Your task to perform on an android device: Look up the best selling books on Goodreads. Image 0: 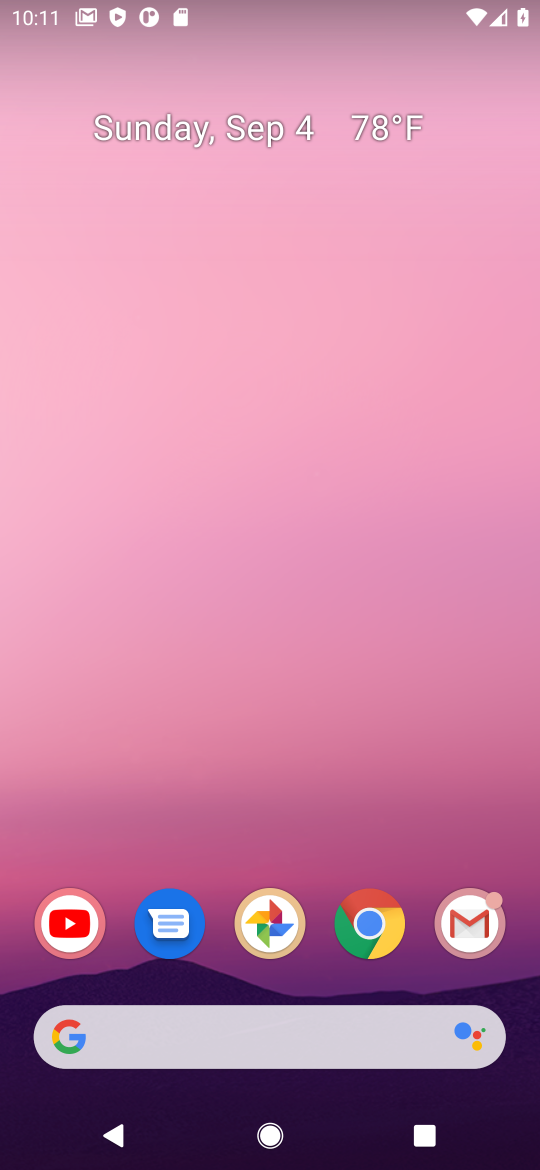
Step 0: click (370, 940)
Your task to perform on an android device: Look up the best selling books on Goodreads. Image 1: 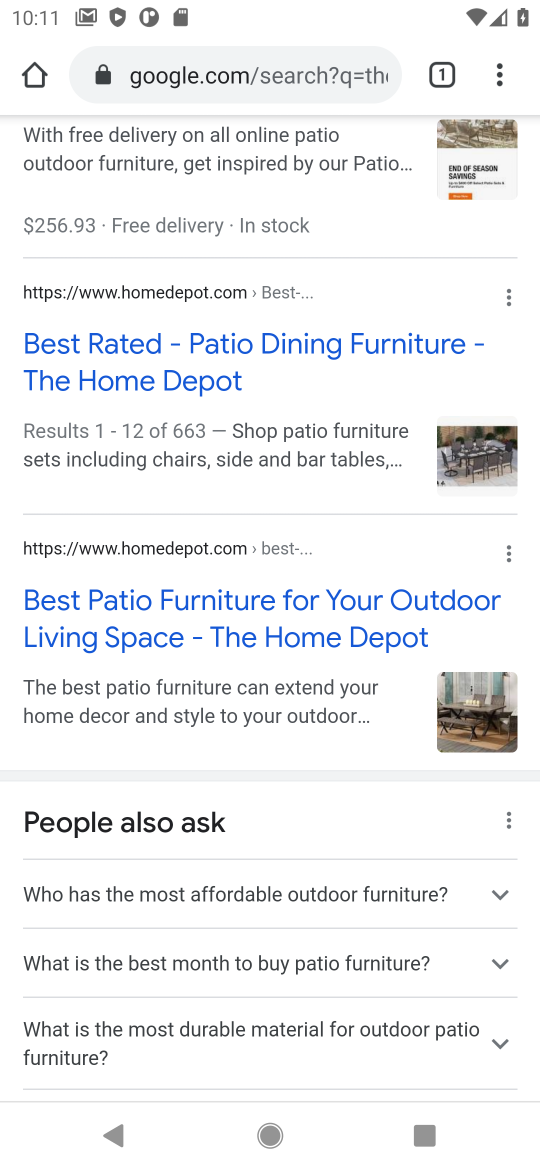
Step 1: click (238, 79)
Your task to perform on an android device: Look up the best selling books on Goodreads. Image 2: 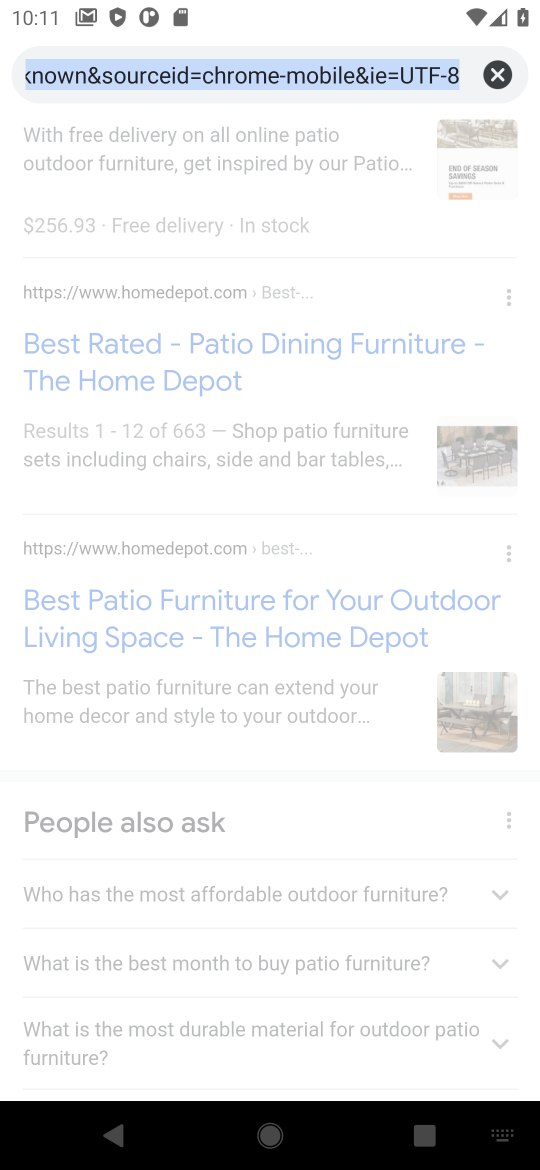
Step 2: click (493, 72)
Your task to perform on an android device: Look up the best selling books on Goodreads. Image 3: 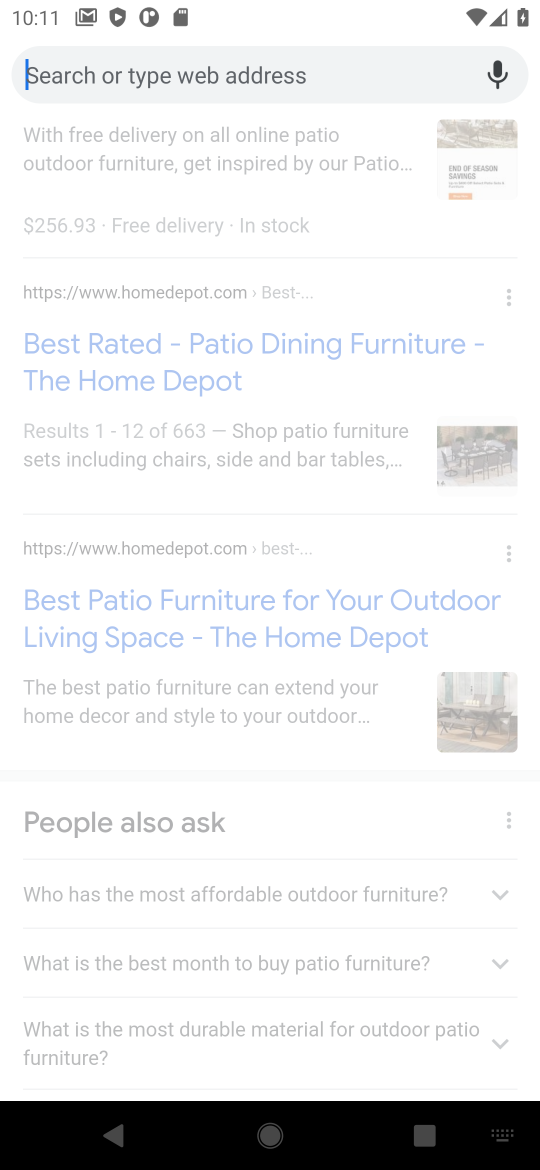
Step 3: type "the best selling books on Goodreads."
Your task to perform on an android device: Look up the best selling books on Goodreads. Image 4: 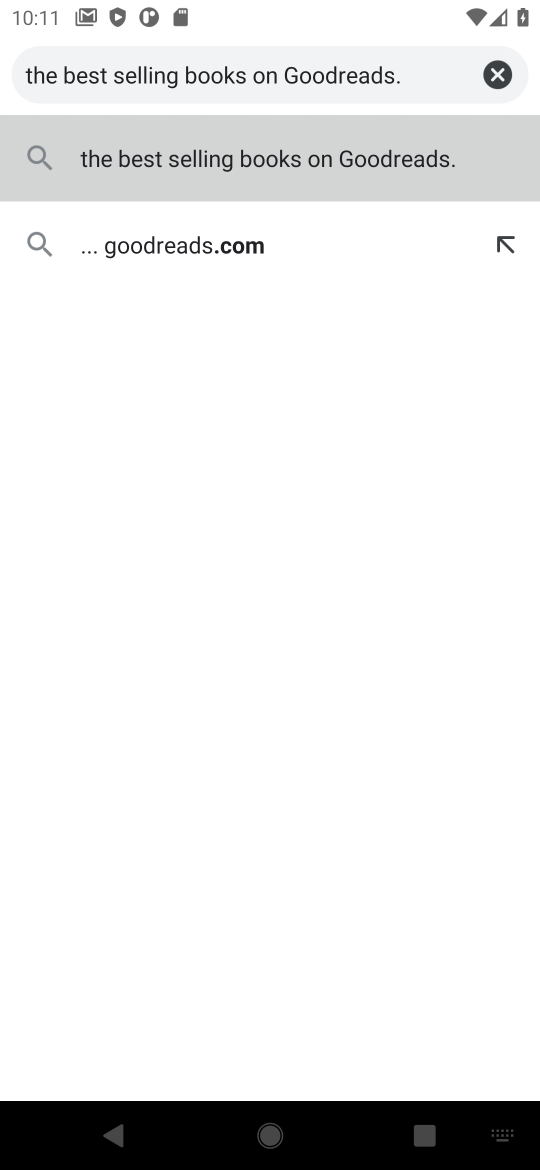
Step 4: click (247, 170)
Your task to perform on an android device: Look up the best selling books on Goodreads. Image 5: 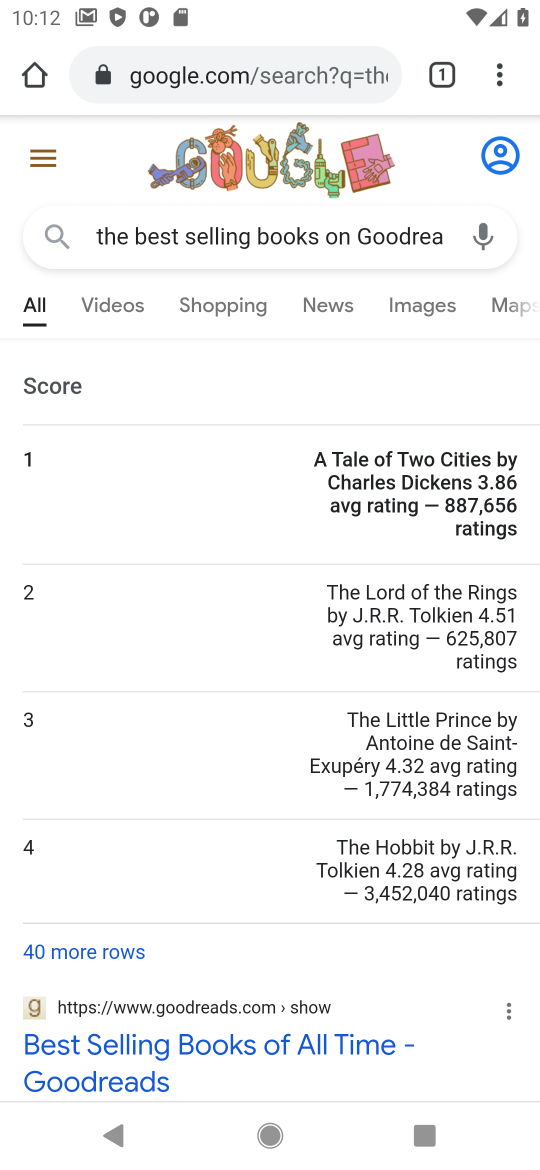
Step 5: task complete